Your task to perform on an android device: Open my contact list Image 0: 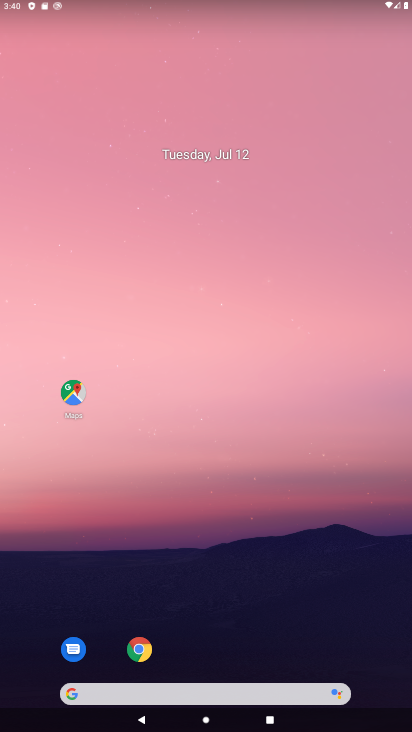
Step 0: press home button
Your task to perform on an android device: Open my contact list Image 1: 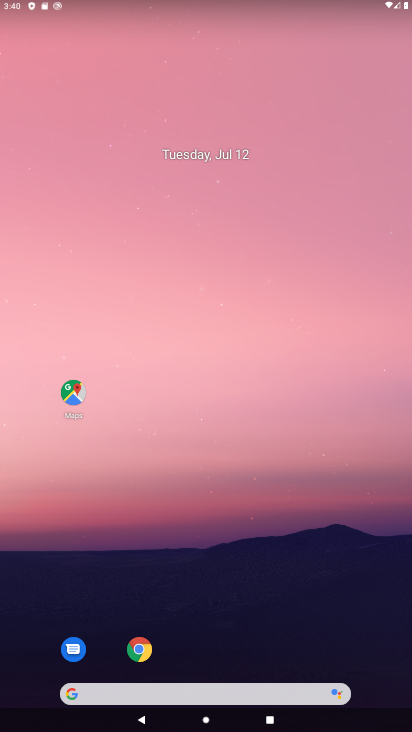
Step 1: drag from (222, 663) to (222, 72)
Your task to perform on an android device: Open my contact list Image 2: 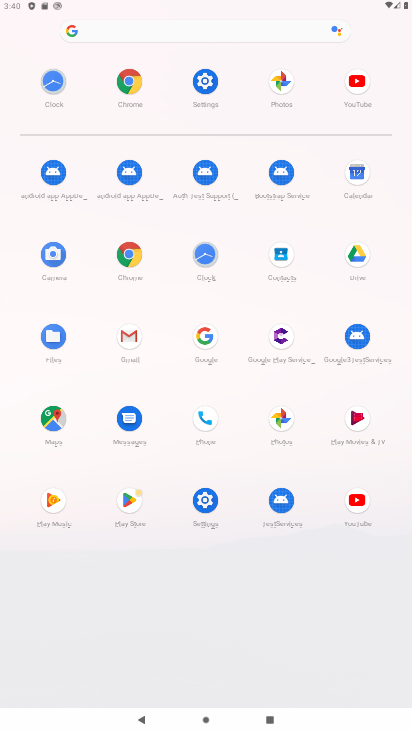
Step 2: click (279, 247)
Your task to perform on an android device: Open my contact list Image 3: 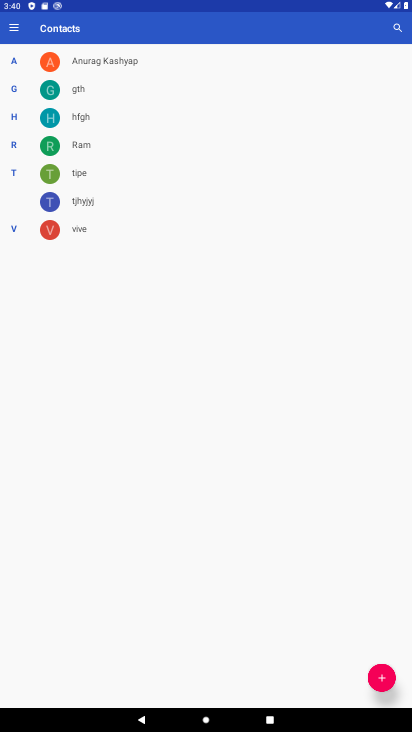
Step 3: task complete